Your task to perform on an android device: Go to sound settings Image 0: 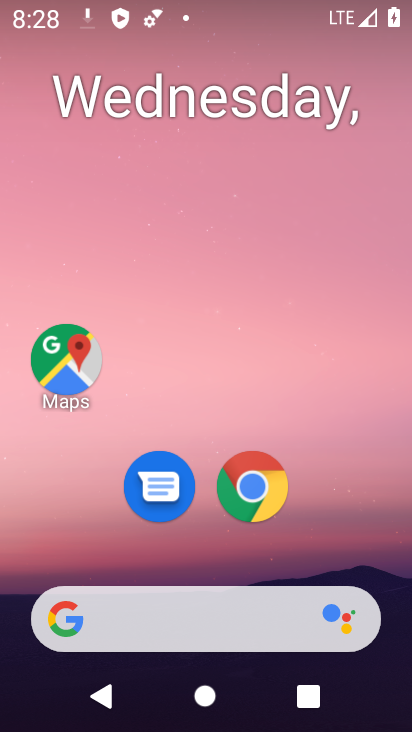
Step 0: drag from (144, 539) to (199, 44)
Your task to perform on an android device: Go to sound settings Image 1: 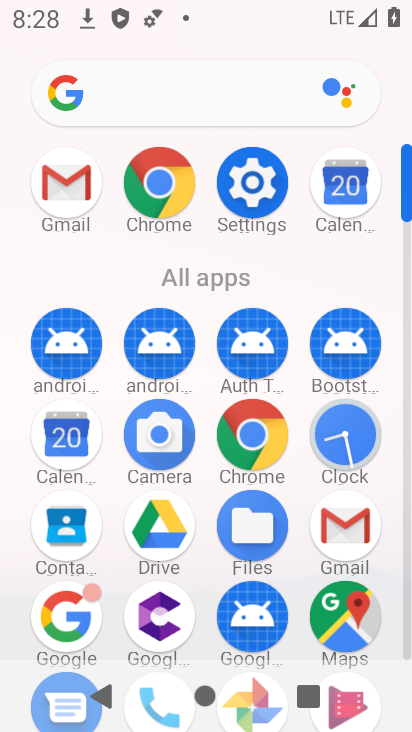
Step 1: click (260, 169)
Your task to perform on an android device: Go to sound settings Image 2: 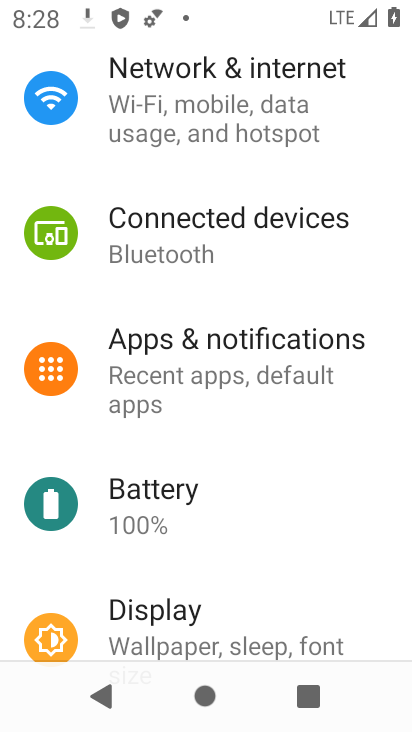
Step 2: drag from (198, 639) to (262, 319)
Your task to perform on an android device: Go to sound settings Image 3: 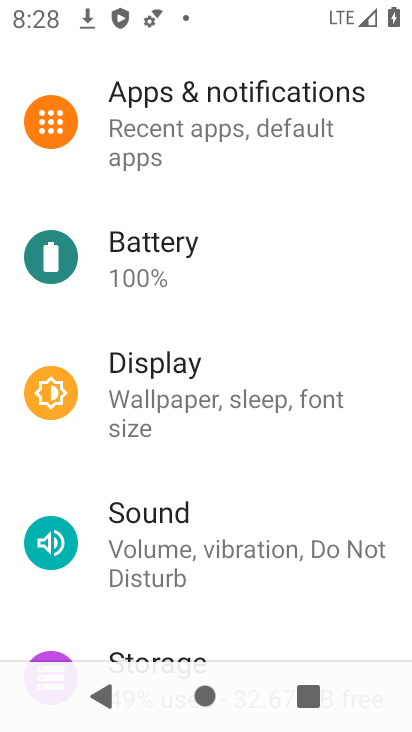
Step 3: click (160, 552)
Your task to perform on an android device: Go to sound settings Image 4: 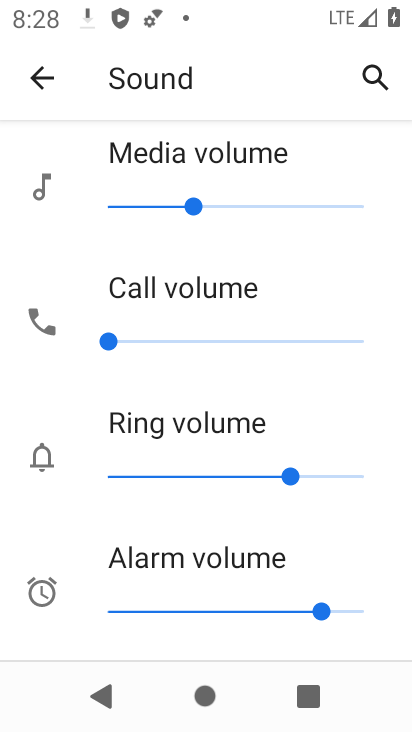
Step 4: task complete